Your task to perform on an android device: Show me popular videos on Youtube Image 0: 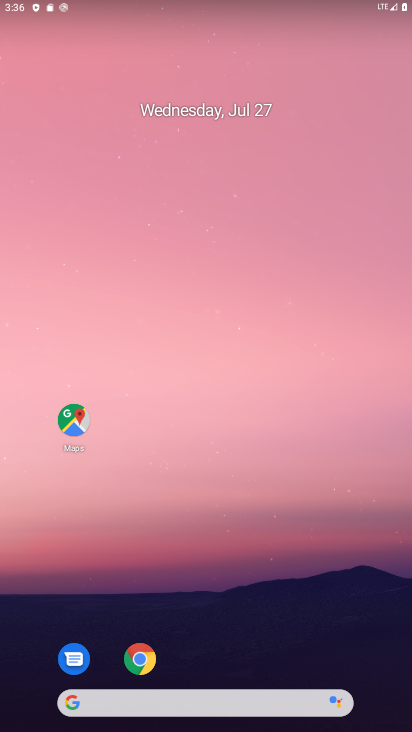
Step 0: drag from (236, 661) to (235, 27)
Your task to perform on an android device: Show me popular videos on Youtube Image 1: 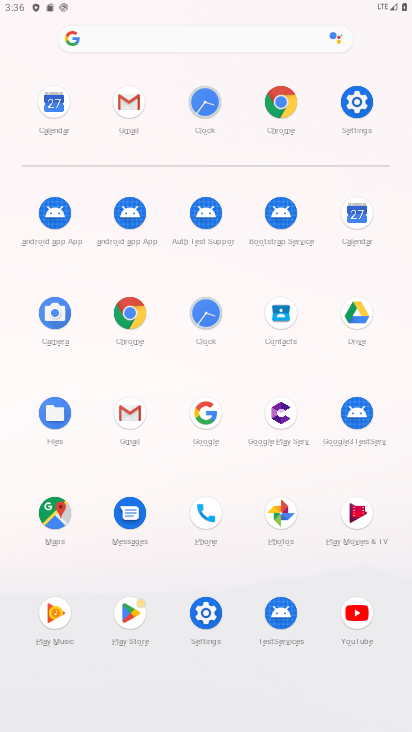
Step 1: click (368, 619)
Your task to perform on an android device: Show me popular videos on Youtube Image 2: 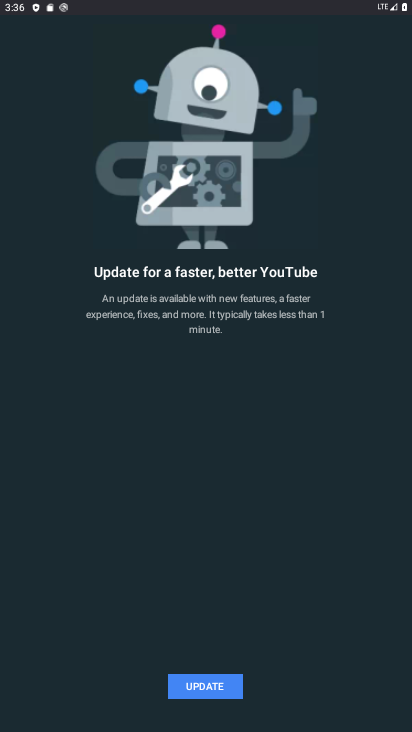
Step 2: click (216, 684)
Your task to perform on an android device: Show me popular videos on Youtube Image 3: 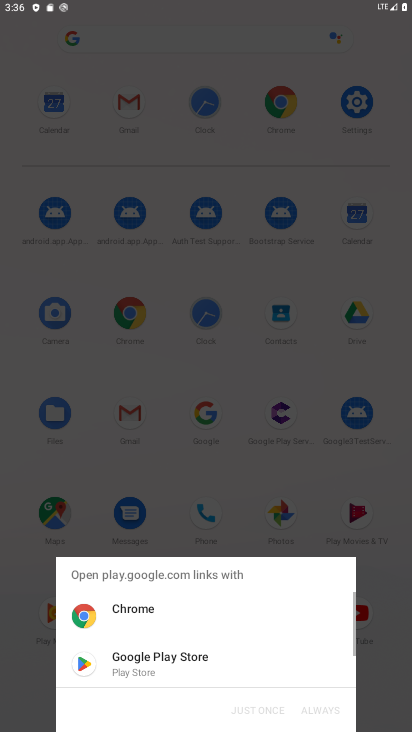
Step 3: click (132, 666)
Your task to perform on an android device: Show me popular videos on Youtube Image 4: 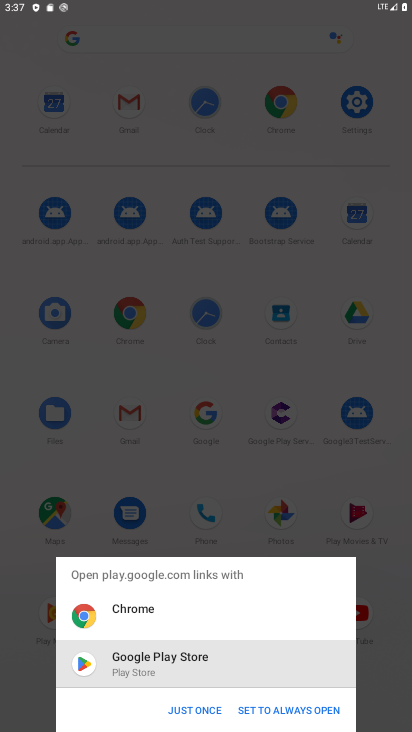
Step 4: click (188, 707)
Your task to perform on an android device: Show me popular videos on Youtube Image 5: 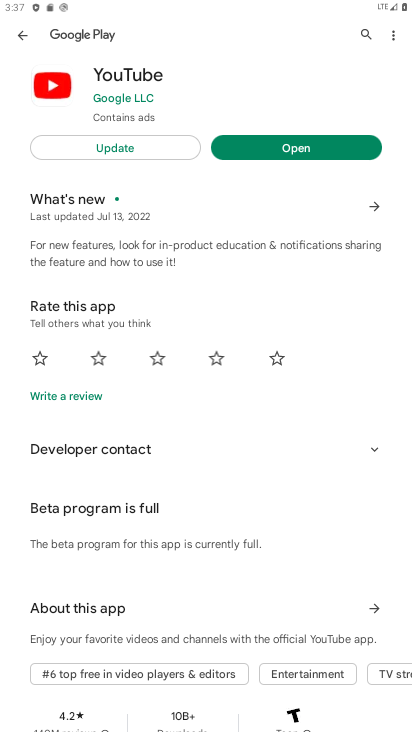
Step 5: click (110, 151)
Your task to perform on an android device: Show me popular videos on Youtube Image 6: 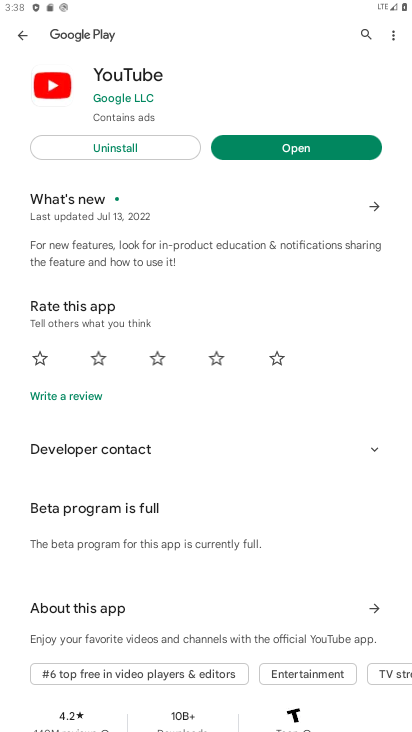
Step 6: click (243, 146)
Your task to perform on an android device: Show me popular videos on Youtube Image 7: 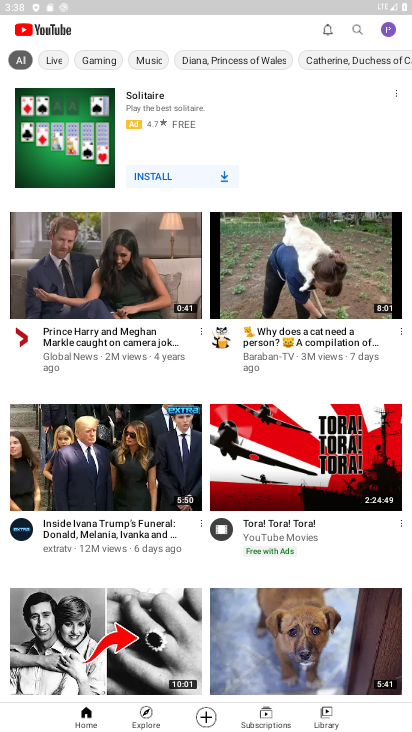
Step 7: task complete